Your task to perform on an android device: Go to notification settings Image 0: 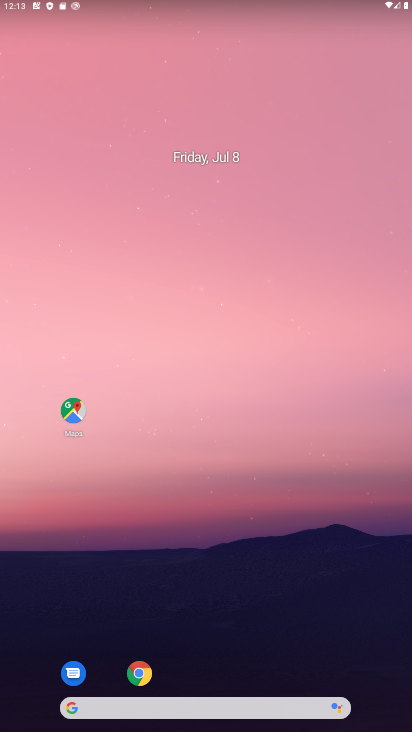
Step 0: drag from (223, 691) to (200, 51)
Your task to perform on an android device: Go to notification settings Image 1: 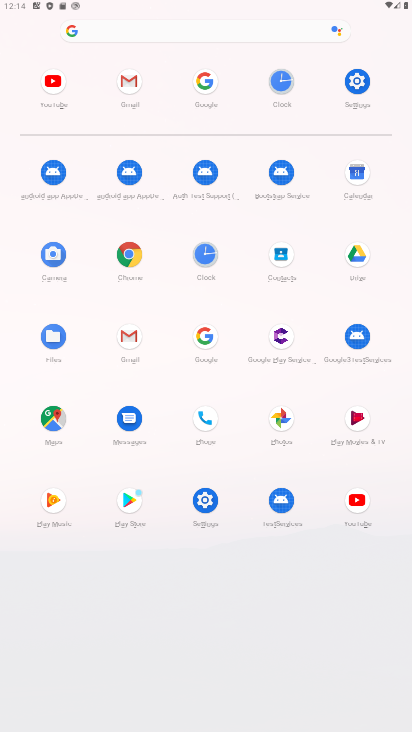
Step 1: click (355, 82)
Your task to perform on an android device: Go to notification settings Image 2: 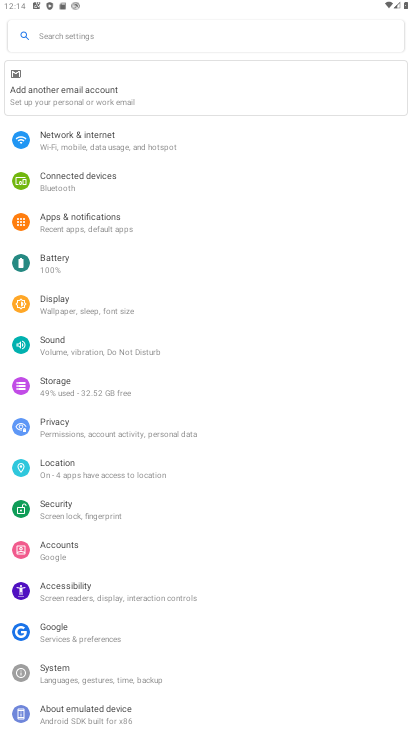
Step 2: click (77, 227)
Your task to perform on an android device: Go to notification settings Image 3: 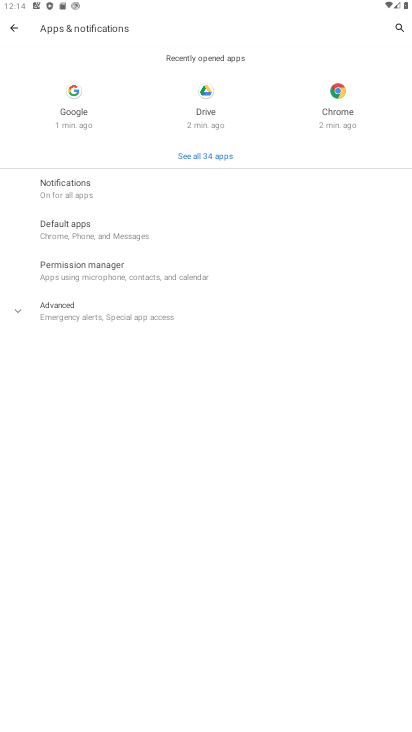
Step 3: click (67, 187)
Your task to perform on an android device: Go to notification settings Image 4: 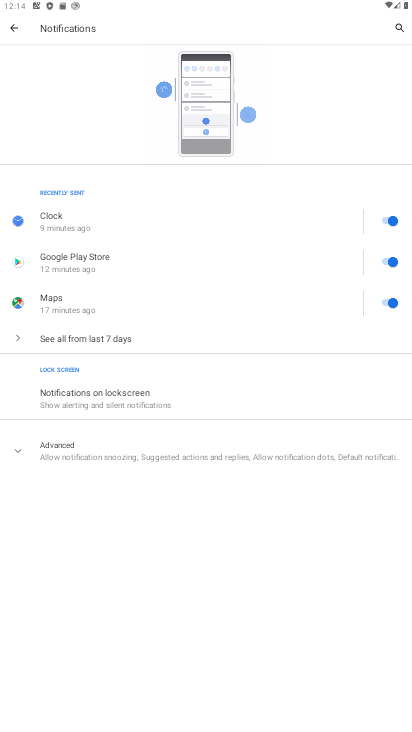
Step 4: task complete